Your task to perform on an android device: Open Wikipedia Image 0: 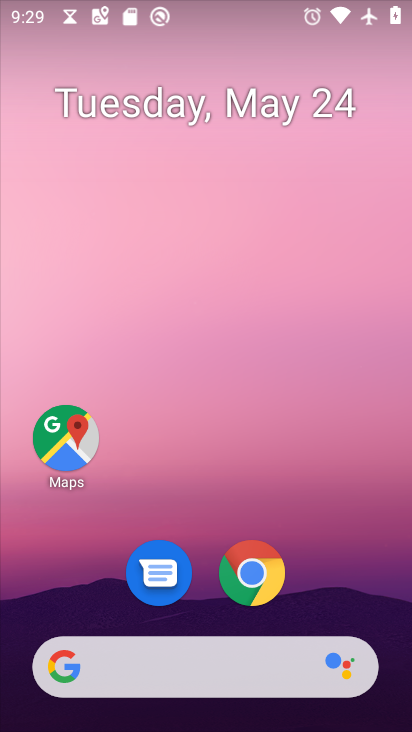
Step 0: drag from (394, 584) to (293, 3)
Your task to perform on an android device: Open Wikipedia Image 1: 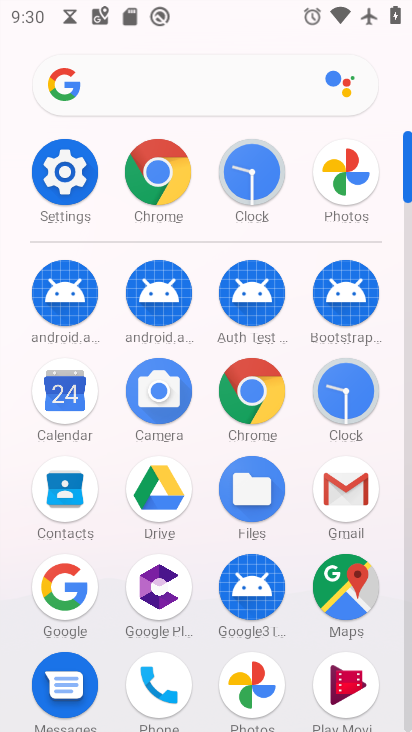
Step 1: click (153, 177)
Your task to perform on an android device: Open Wikipedia Image 2: 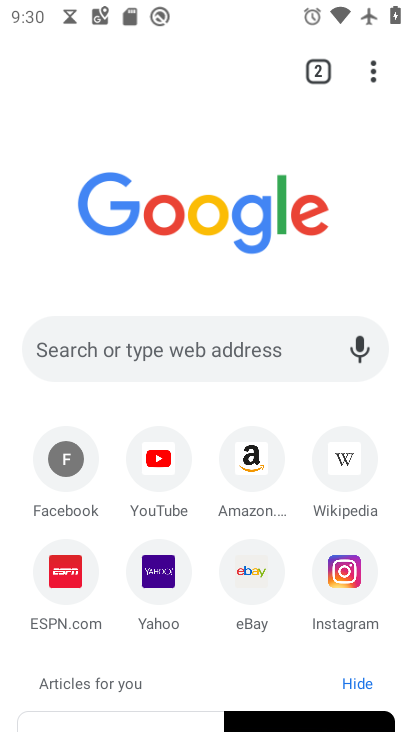
Step 2: click (331, 463)
Your task to perform on an android device: Open Wikipedia Image 3: 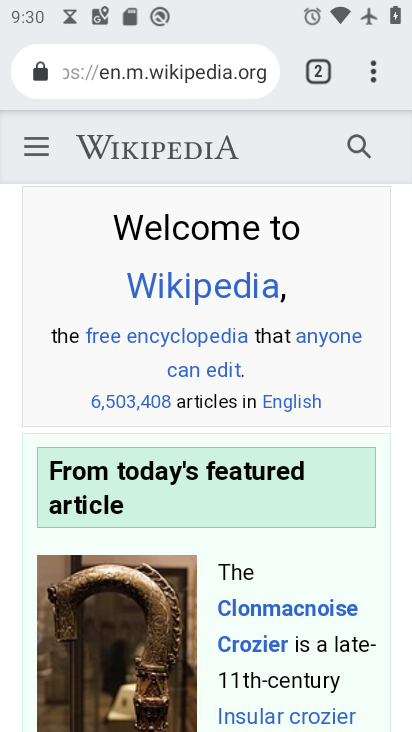
Step 3: task complete